Your task to perform on an android device: clear all cookies in the chrome app Image 0: 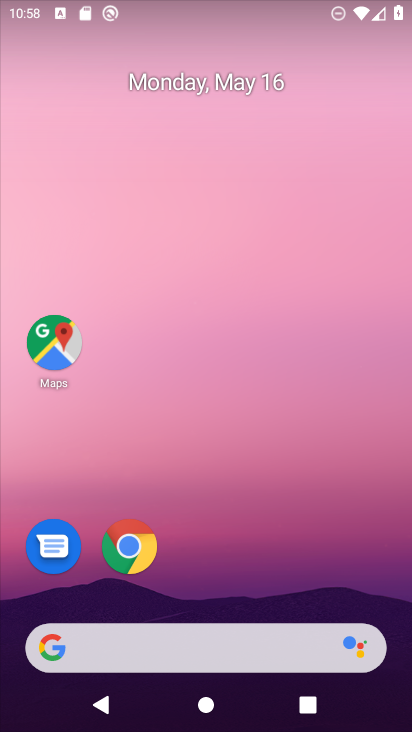
Step 0: click (135, 533)
Your task to perform on an android device: clear all cookies in the chrome app Image 1: 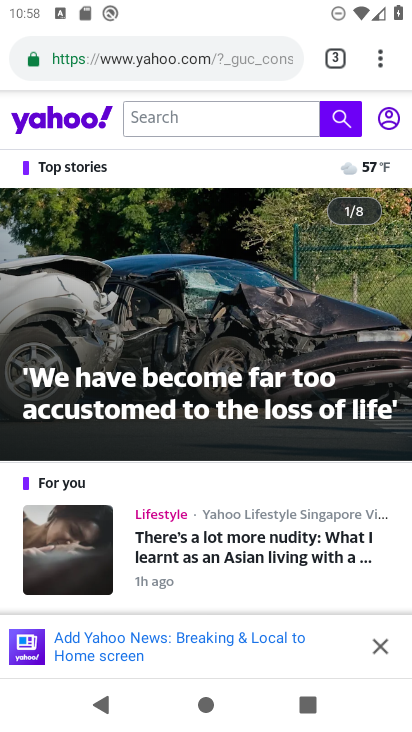
Step 1: click (399, 49)
Your task to perform on an android device: clear all cookies in the chrome app Image 2: 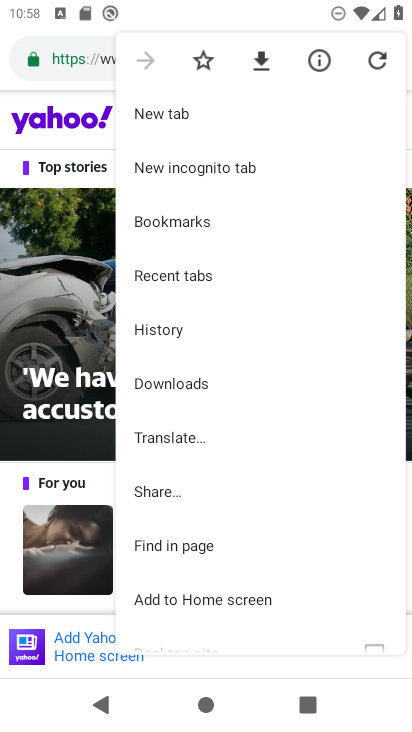
Step 2: click (193, 333)
Your task to perform on an android device: clear all cookies in the chrome app Image 3: 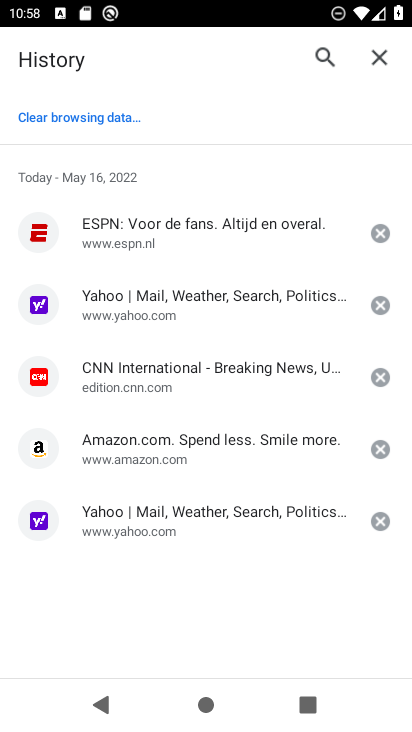
Step 3: click (109, 121)
Your task to perform on an android device: clear all cookies in the chrome app Image 4: 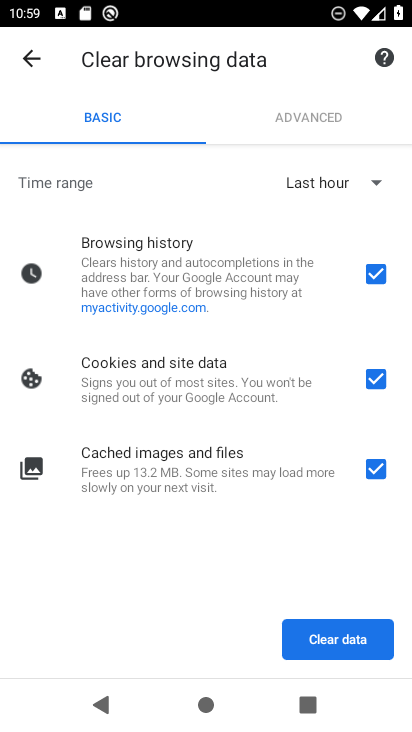
Step 4: click (382, 276)
Your task to perform on an android device: clear all cookies in the chrome app Image 5: 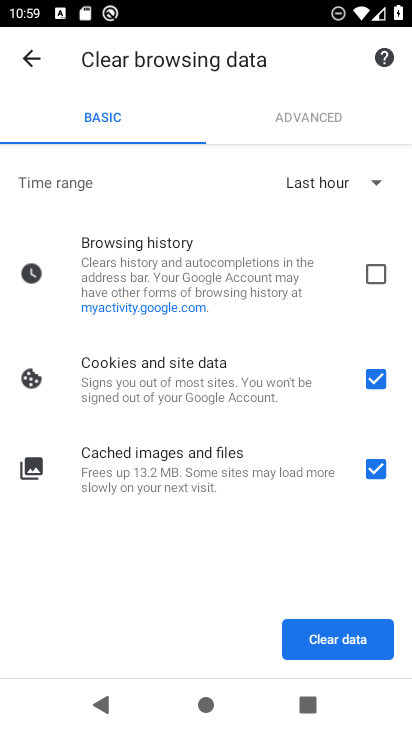
Step 5: click (380, 473)
Your task to perform on an android device: clear all cookies in the chrome app Image 6: 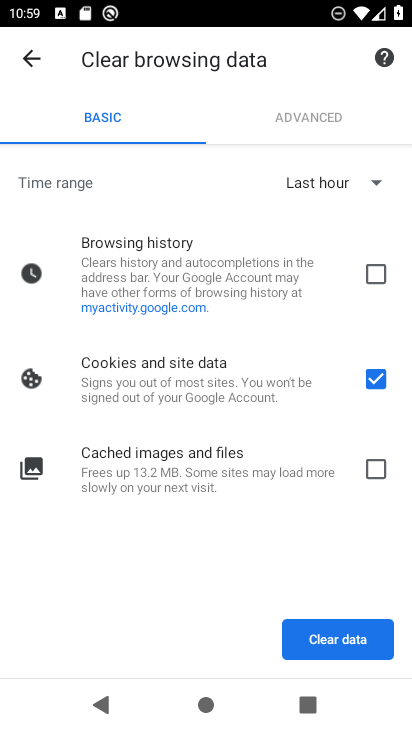
Step 6: click (342, 633)
Your task to perform on an android device: clear all cookies in the chrome app Image 7: 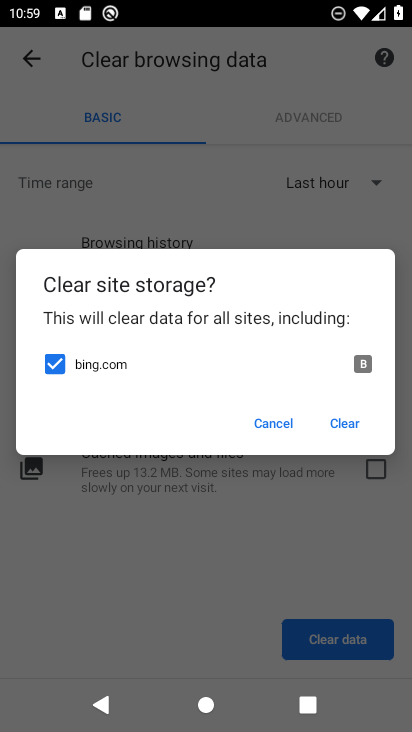
Step 7: click (342, 420)
Your task to perform on an android device: clear all cookies in the chrome app Image 8: 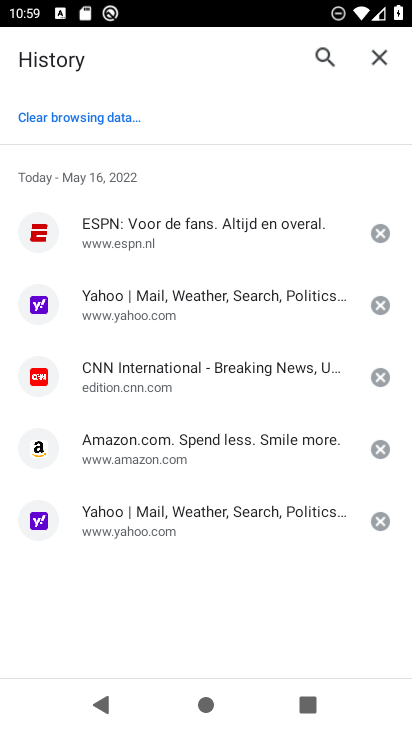
Step 8: task complete